Your task to perform on an android device: turn off data saver in the chrome app Image 0: 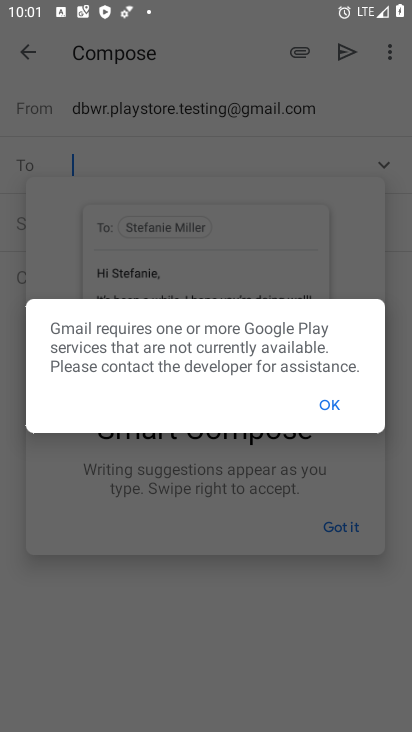
Step 0: press home button
Your task to perform on an android device: turn off data saver in the chrome app Image 1: 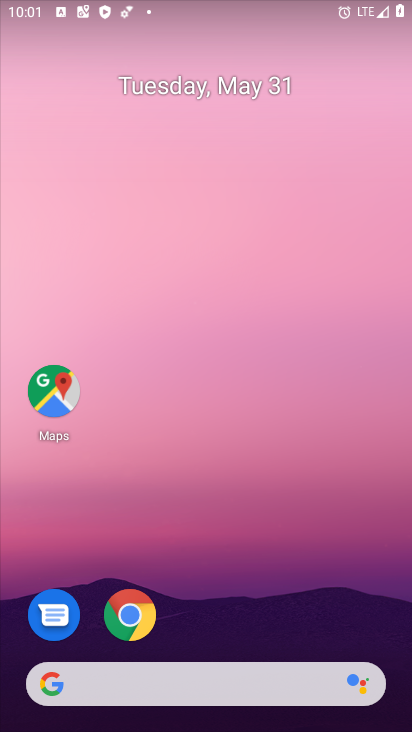
Step 1: click (131, 614)
Your task to perform on an android device: turn off data saver in the chrome app Image 2: 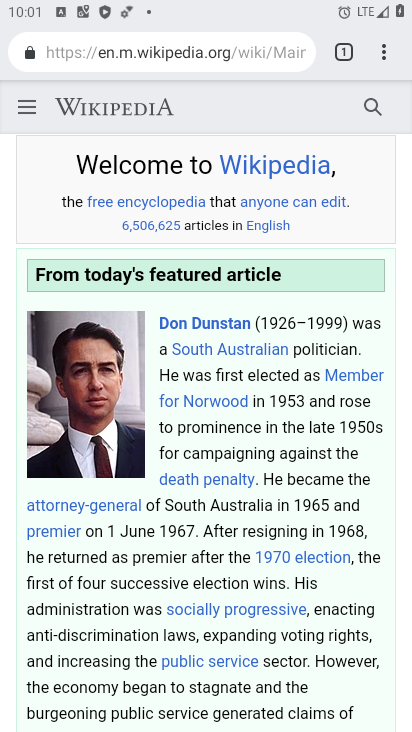
Step 2: click (382, 60)
Your task to perform on an android device: turn off data saver in the chrome app Image 3: 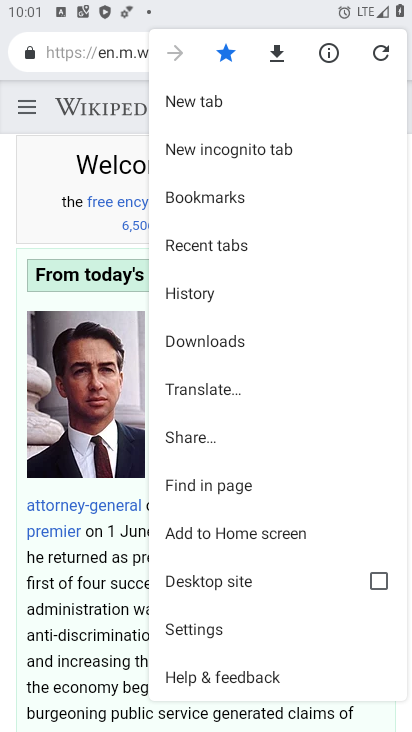
Step 3: click (189, 635)
Your task to perform on an android device: turn off data saver in the chrome app Image 4: 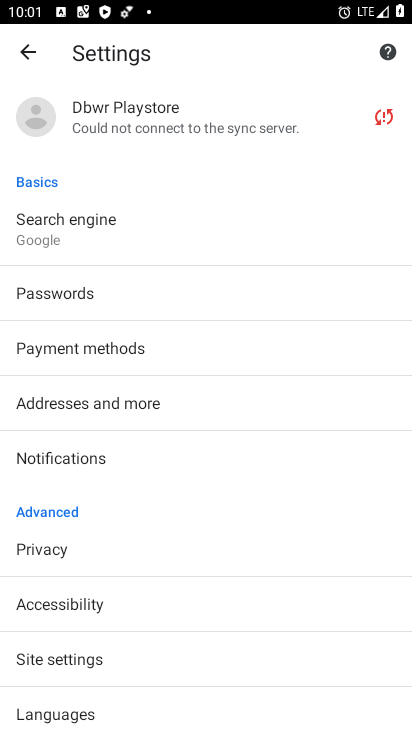
Step 4: drag from (177, 663) to (201, 392)
Your task to perform on an android device: turn off data saver in the chrome app Image 5: 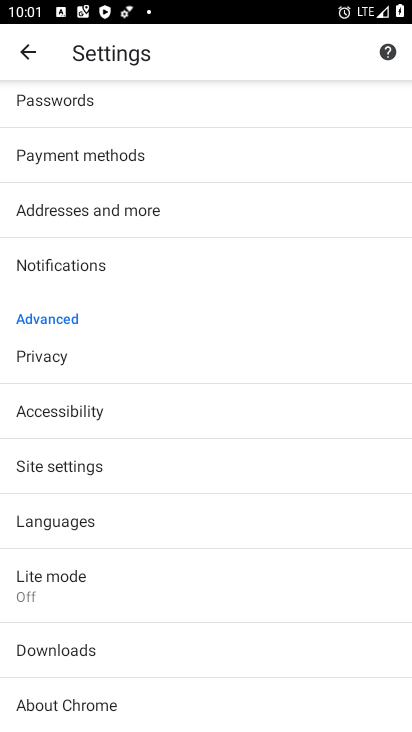
Step 5: click (39, 575)
Your task to perform on an android device: turn off data saver in the chrome app Image 6: 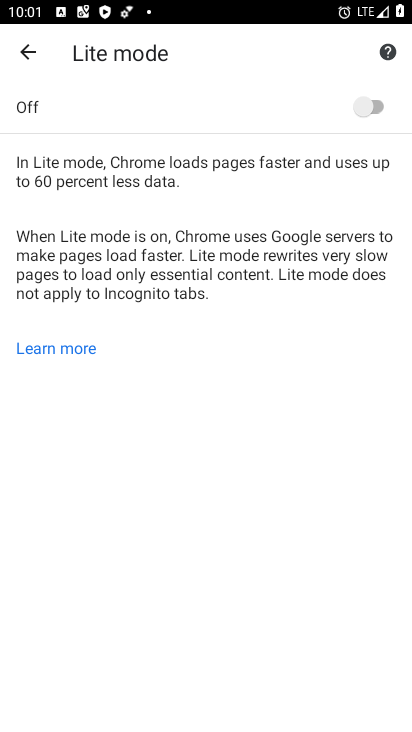
Step 6: task complete